Your task to perform on an android device: Search for alienware aurora on bestbuy, select the first entry, add it to the cart, then select checkout. Image 0: 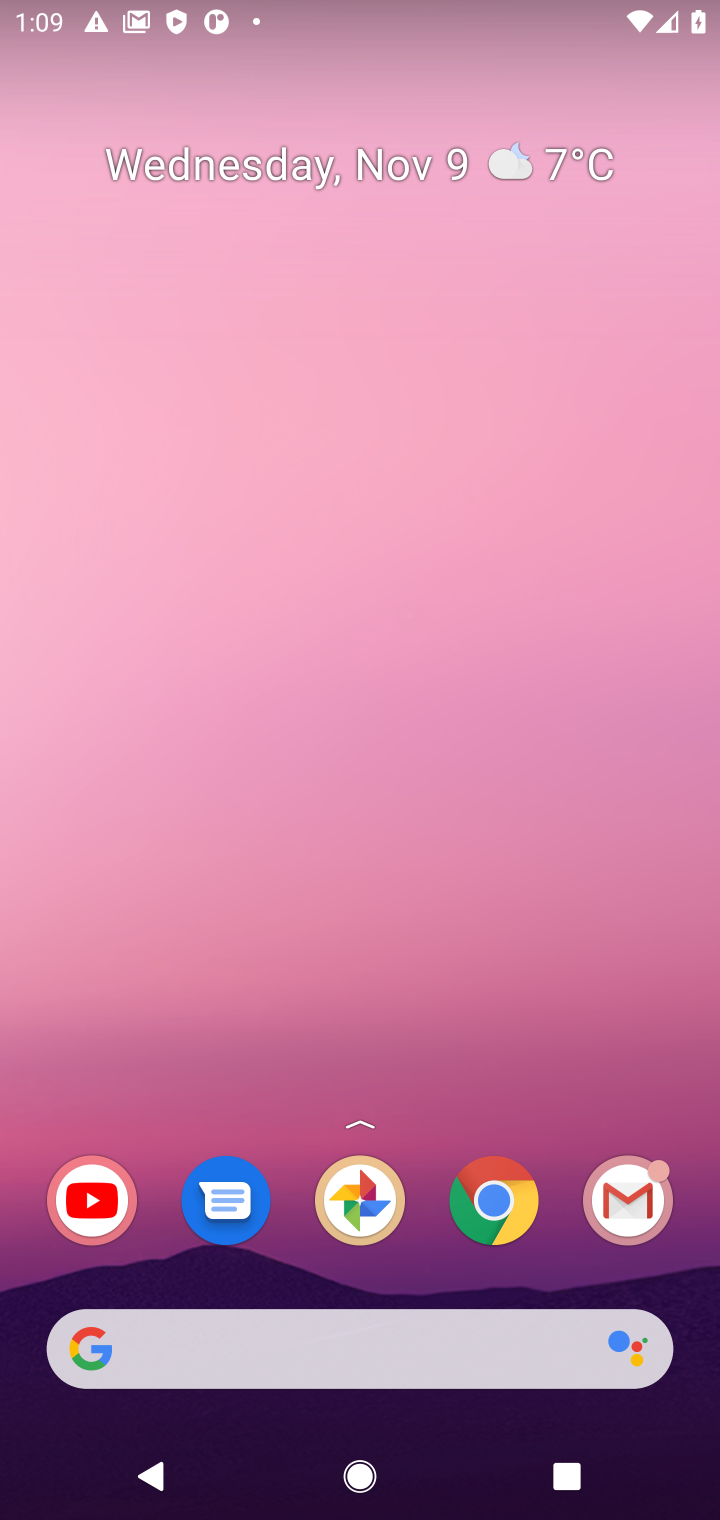
Step 0: click (545, 1359)
Your task to perform on an android device: Search for alienware aurora on bestbuy, select the first entry, add it to the cart, then select checkout. Image 1: 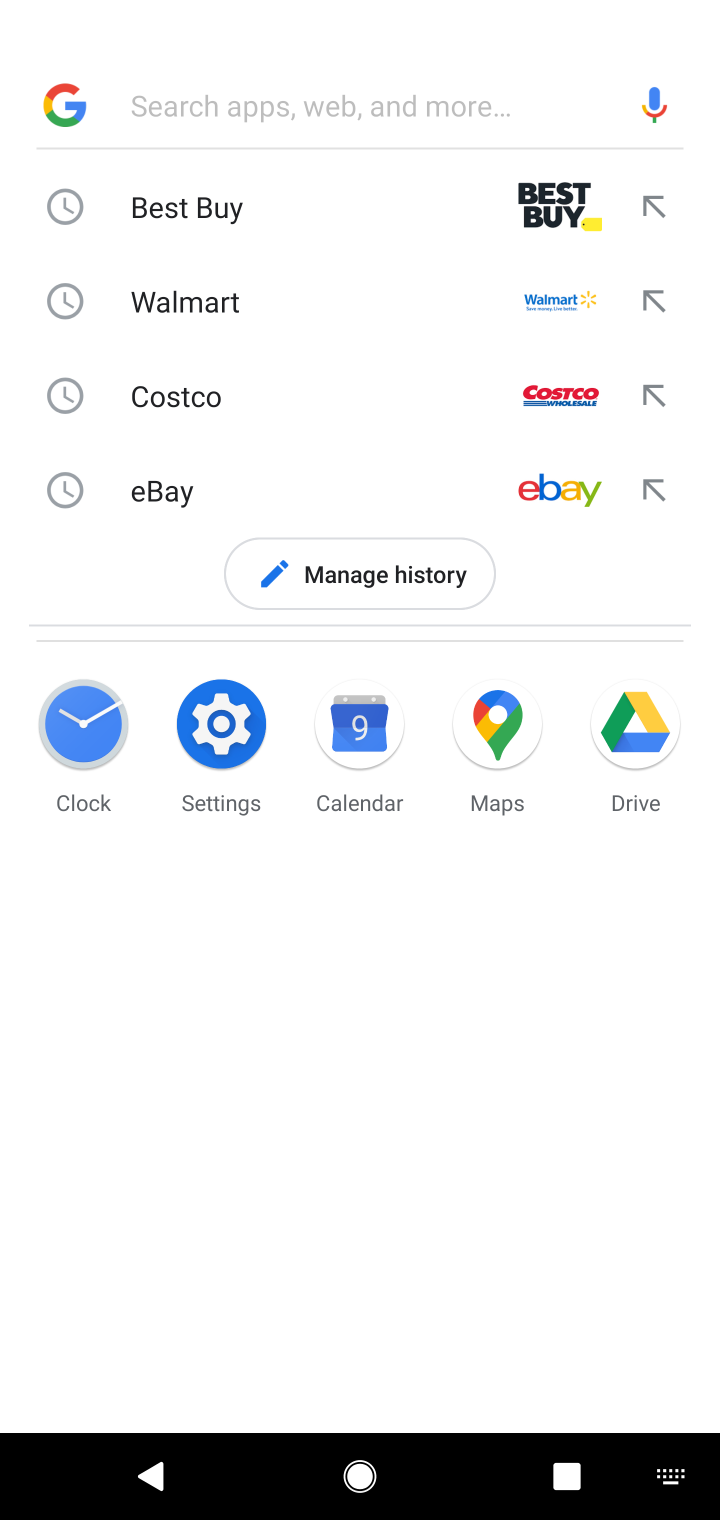
Step 1: click (124, 220)
Your task to perform on an android device: Search for alienware aurora on bestbuy, select the first entry, add it to the cart, then select checkout. Image 2: 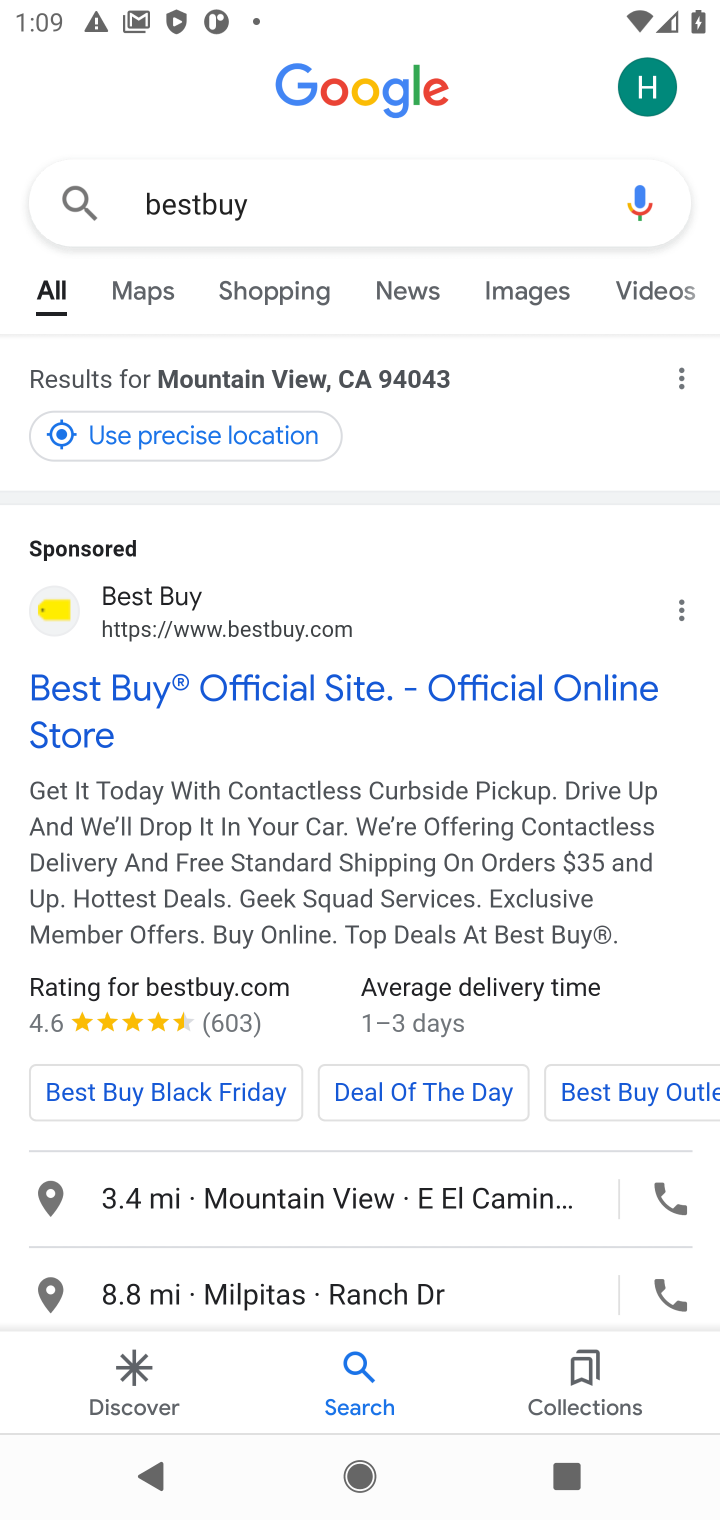
Step 2: click (234, 662)
Your task to perform on an android device: Search for alienware aurora on bestbuy, select the first entry, add it to the cart, then select checkout. Image 3: 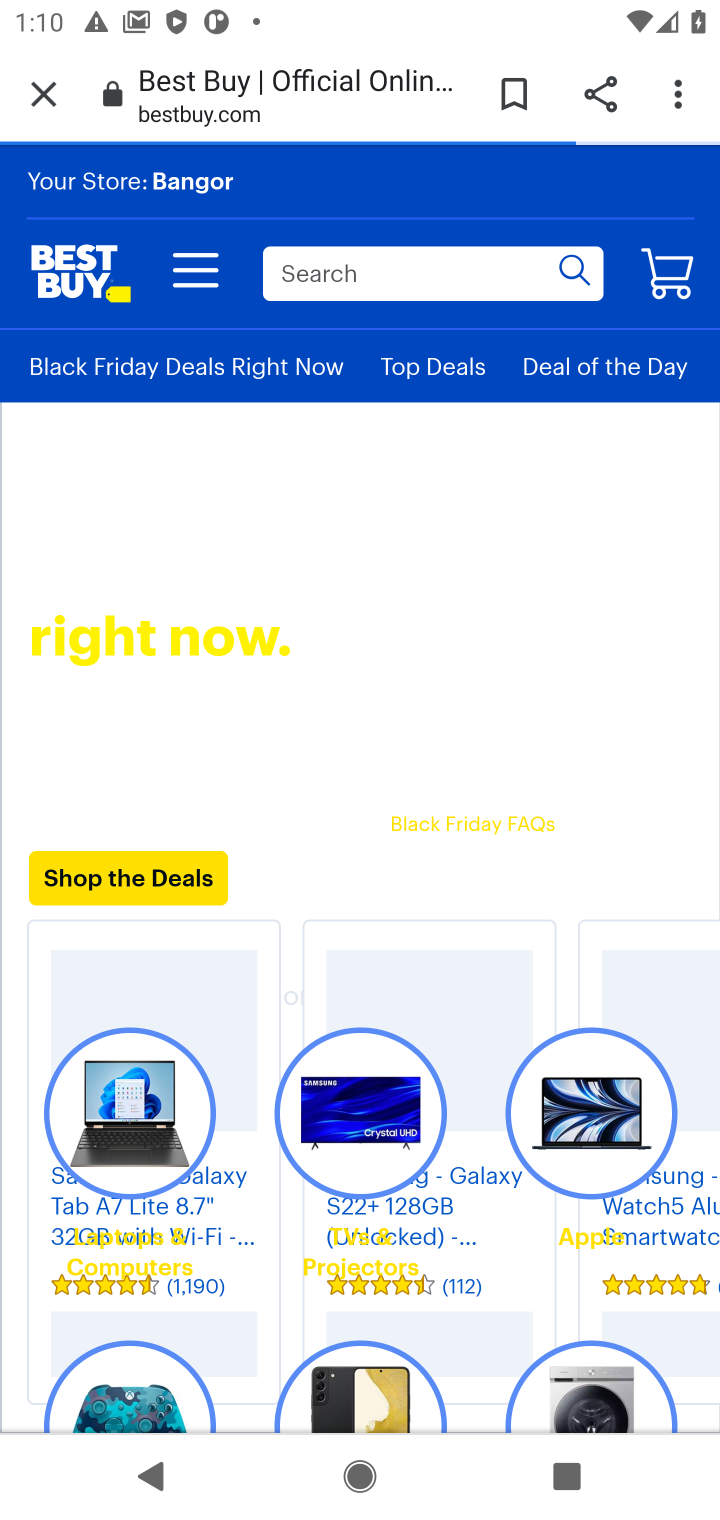
Step 3: task complete